Your task to perform on an android device: Open Reddit.com Image 0: 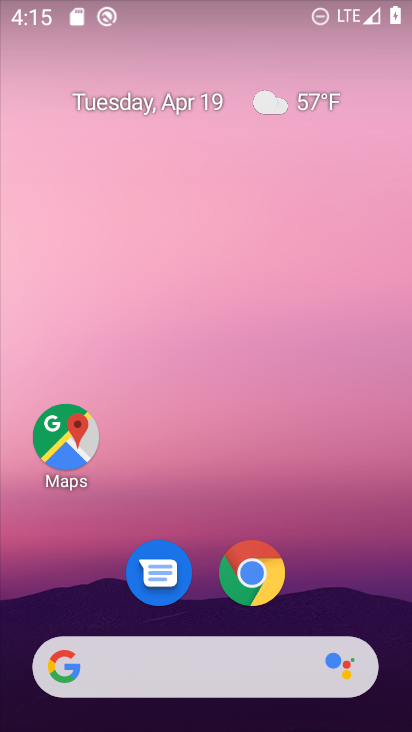
Step 0: click (245, 561)
Your task to perform on an android device: Open Reddit.com Image 1: 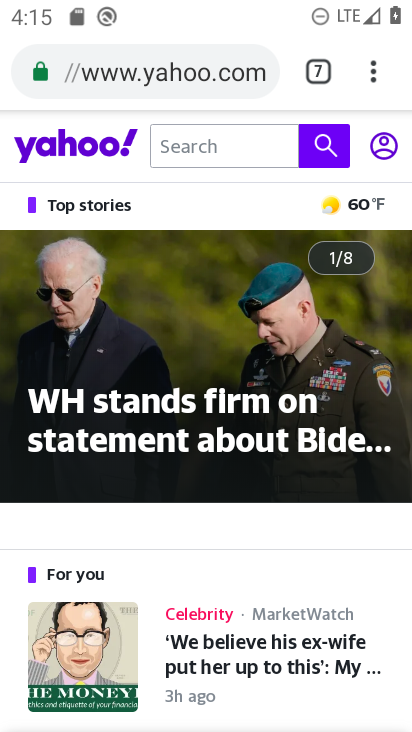
Step 1: click (207, 71)
Your task to perform on an android device: Open Reddit.com Image 2: 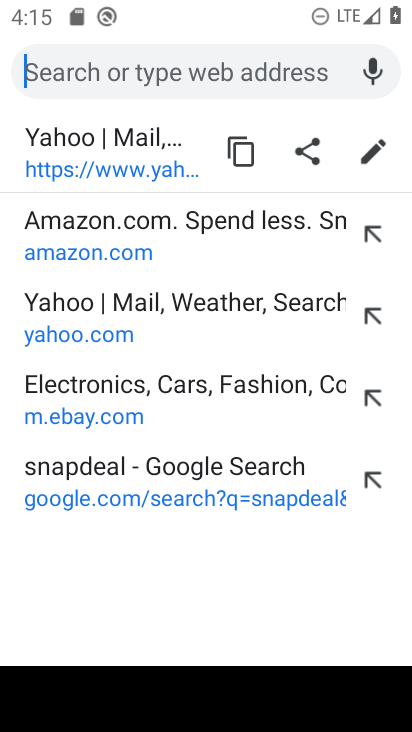
Step 2: type "reddit.com"
Your task to perform on an android device: Open Reddit.com Image 3: 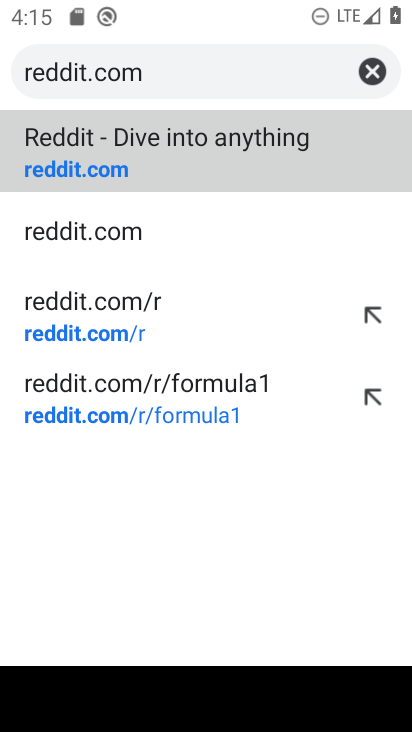
Step 3: click (80, 238)
Your task to perform on an android device: Open Reddit.com Image 4: 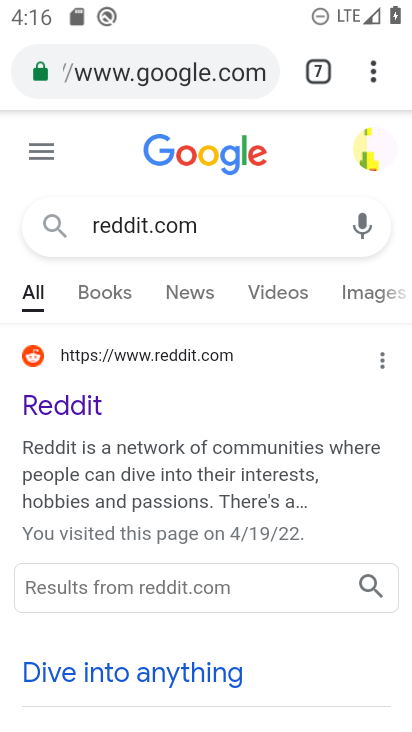
Step 4: click (105, 353)
Your task to perform on an android device: Open Reddit.com Image 5: 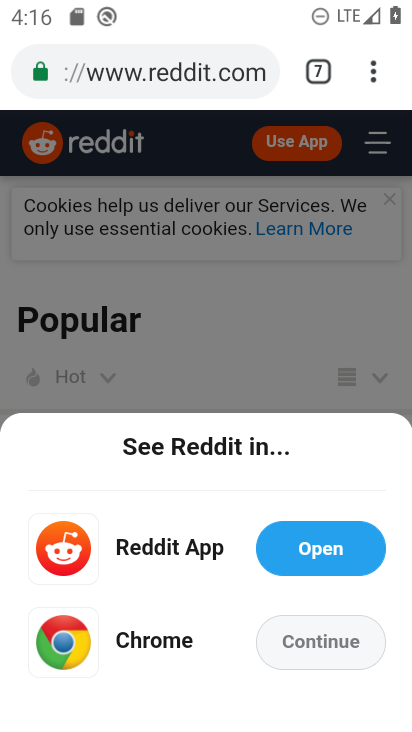
Step 5: task complete